Your task to perform on an android device: change the clock display to show seconds Image 0: 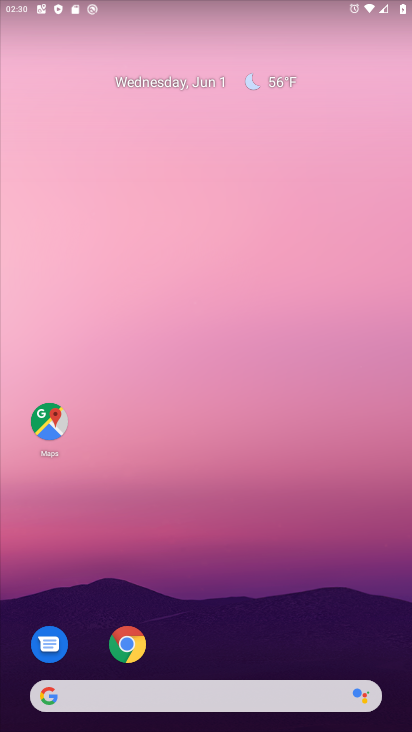
Step 0: drag from (257, 670) to (259, 290)
Your task to perform on an android device: change the clock display to show seconds Image 1: 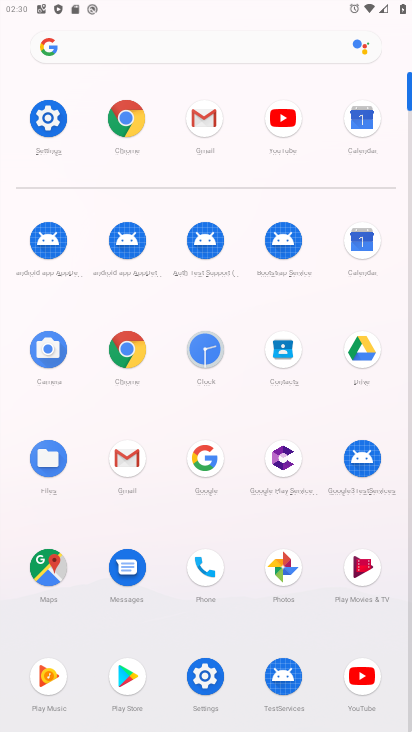
Step 1: click (215, 354)
Your task to perform on an android device: change the clock display to show seconds Image 2: 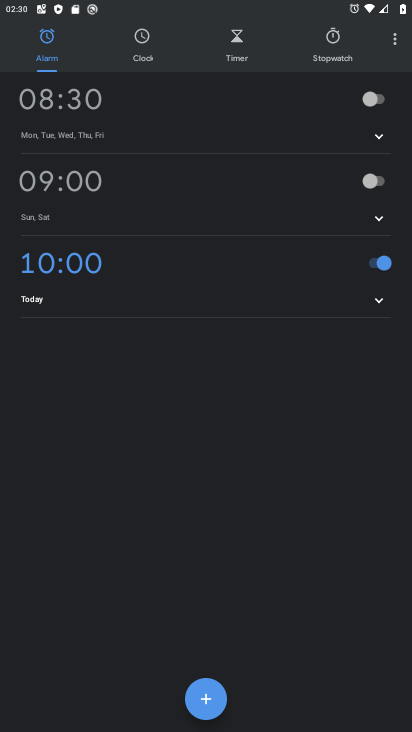
Step 2: click (385, 48)
Your task to perform on an android device: change the clock display to show seconds Image 3: 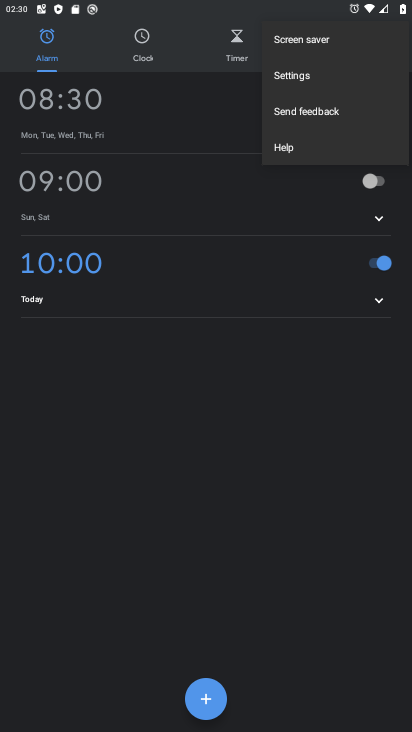
Step 3: click (293, 79)
Your task to perform on an android device: change the clock display to show seconds Image 4: 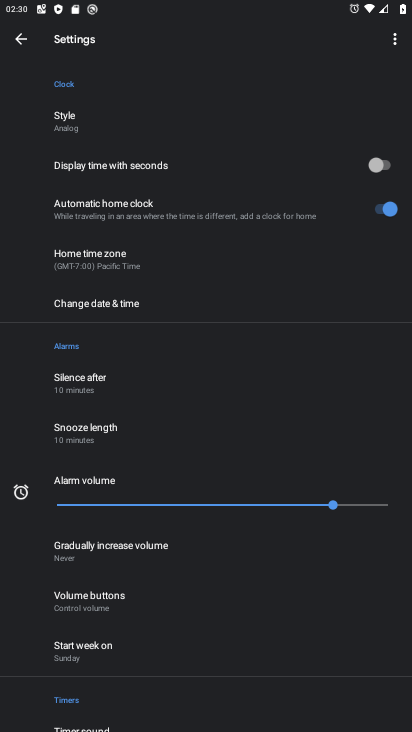
Step 4: click (392, 157)
Your task to perform on an android device: change the clock display to show seconds Image 5: 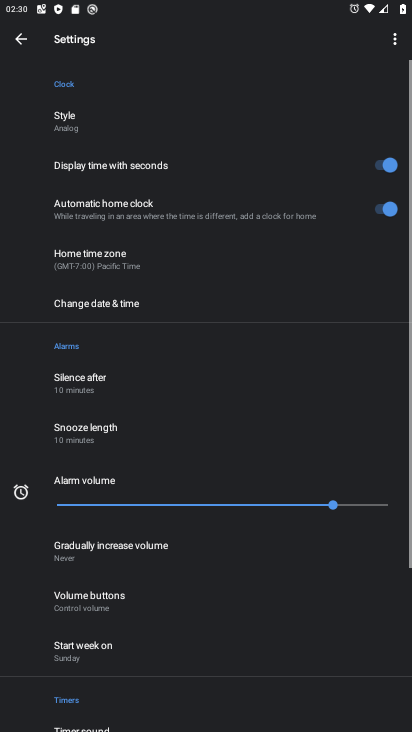
Step 5: task complete